Your task to perform on an android device: What's the weather today? Image 0: 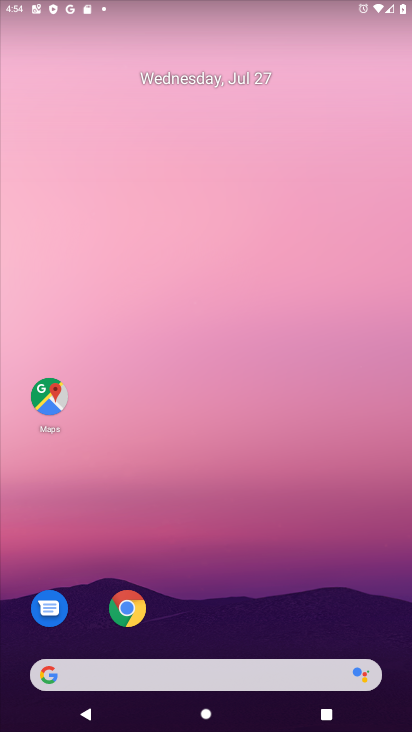
Step 0: click (152, 655)
Your task to perform on an android device: What's the weather today? Image 1: 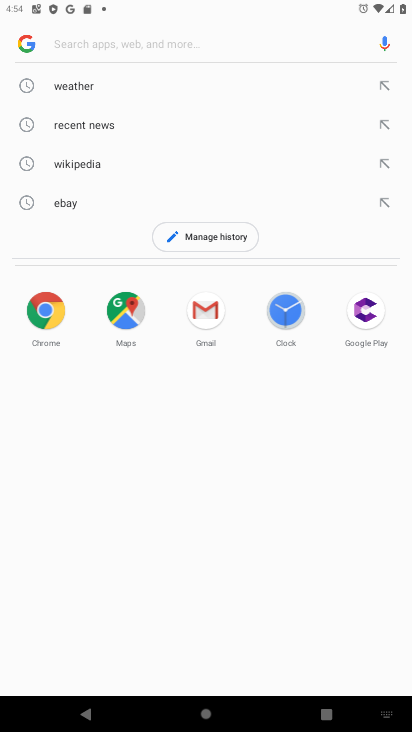
Step 1: click (48, 82)
Your task to perform on an android device: What's the weather today? Image 2: 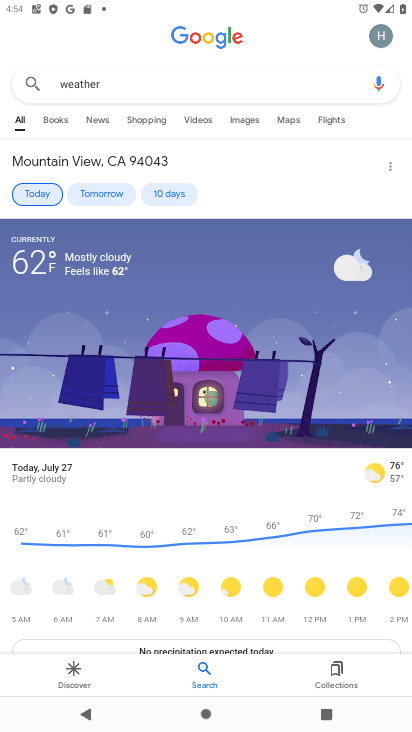
Step 2: click (39, 185)
Your task to perform on an android device: What's the weather today? Image 3: 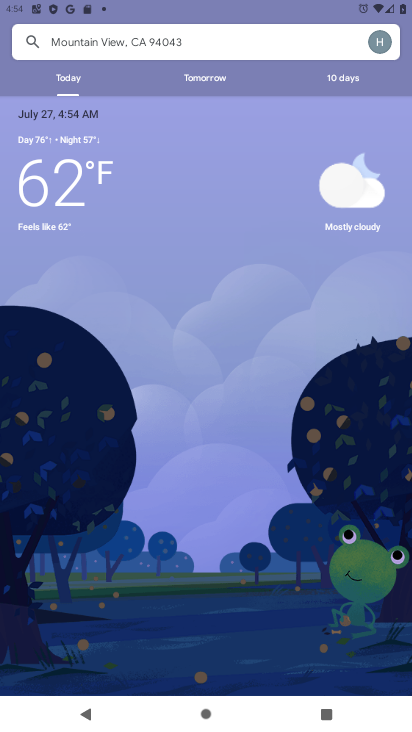
Step 3: task complete